Your task to perform on an android device: change the clock display to analog Image 0: 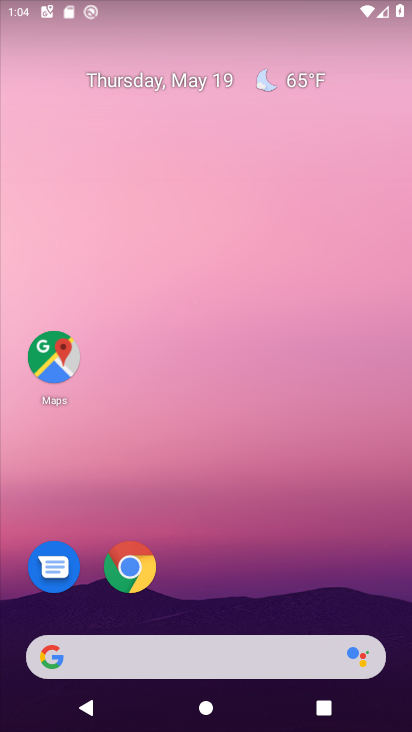
Step 0: drag from (217, 527) to (196, 55)
Your task to perform on an android device: change the clock display to analog Image 1: 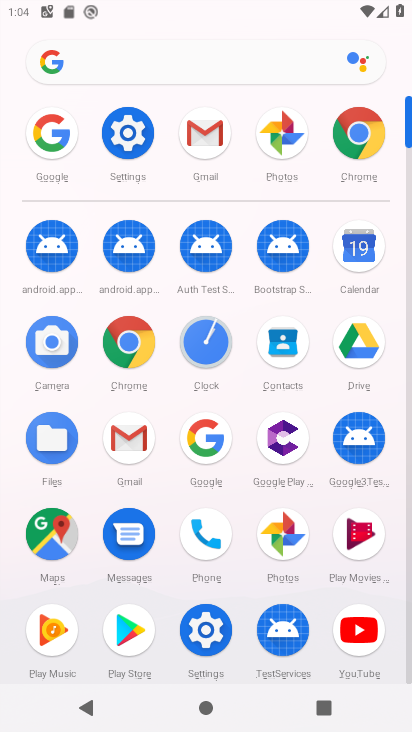
Step 1: click (195, 349)
Your task to perform on an android device: change the clock display to analog Image 2: 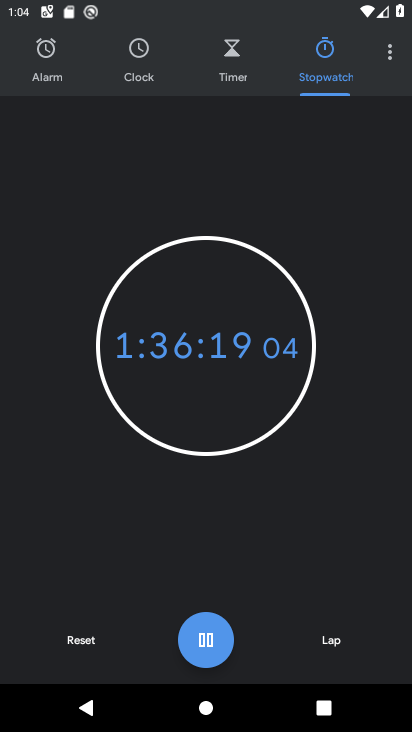
Step 2: click (384, 72)
Your task to perform on an android device: change the clock display to analog Image 3: 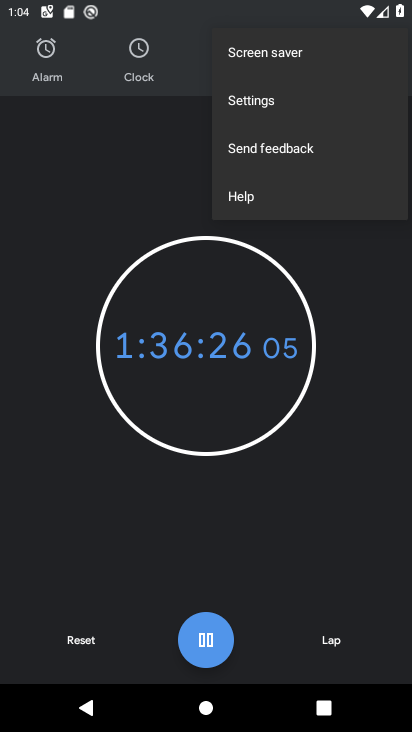
Step 3: click (325, 113)
Your task to perform on an android device: change the clock display to analog Image 4: 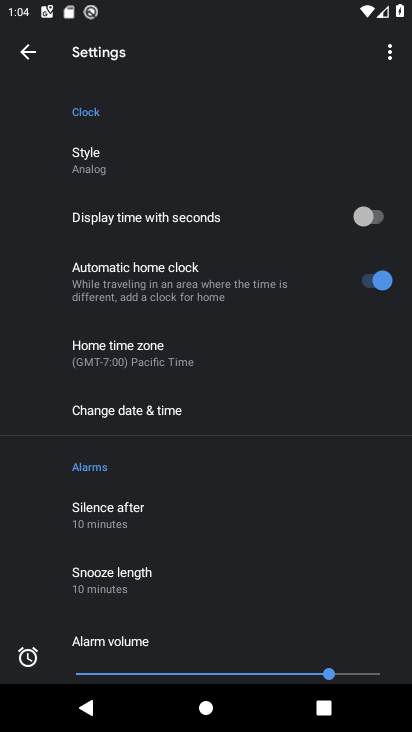
Step 4: click (96, 162)
Your task to perform on an android device: change the clock display to analog Image 5: 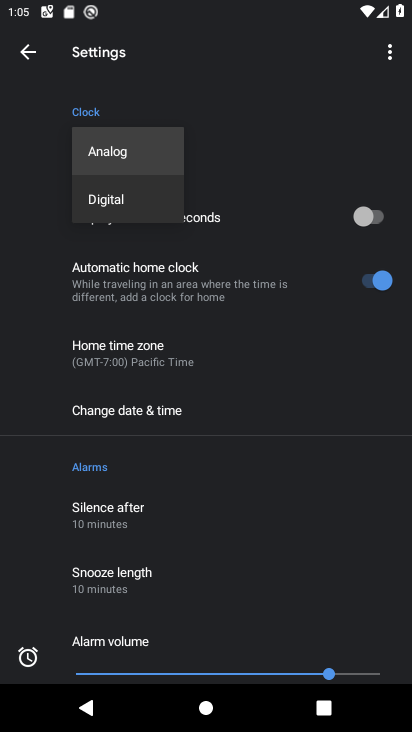
Step 5: click (96, 162)
Your task to perform on an android device: change the clock display to analog Image 6: 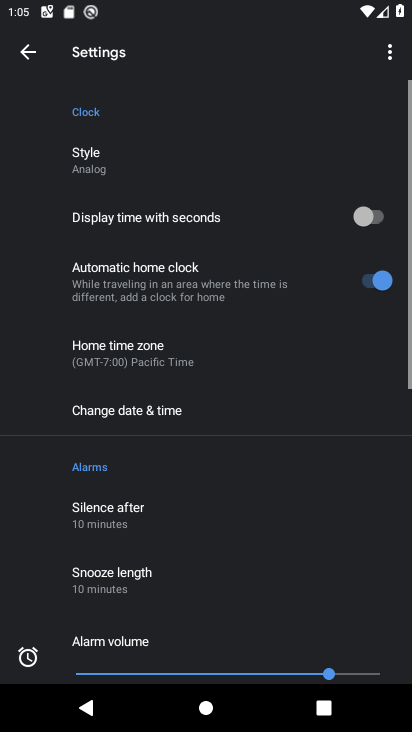
Step 6: click (96, 162)
Your task to perform on an android device: change the clock display to analog Image 7: 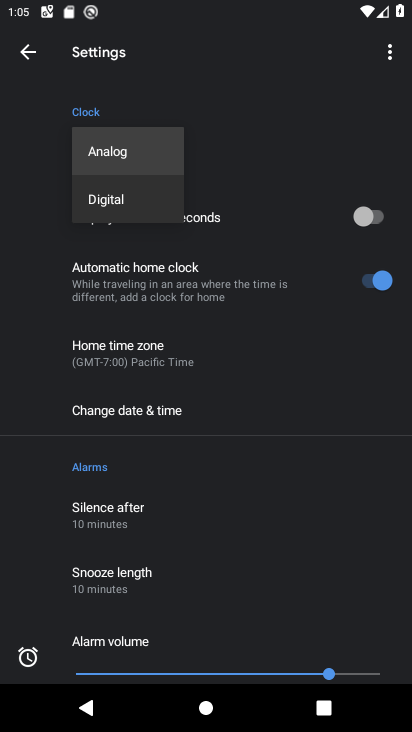
Step 7: task complete